Your task to perform on an android device: Open calendar and show me the first week of next month Image 0: 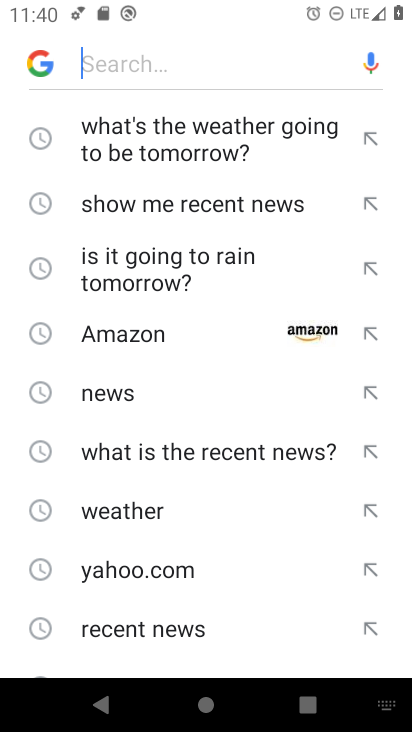
Step 0: press back button
Your task to perform on an android device: Open calendar and show me the first week of next month Image 1: 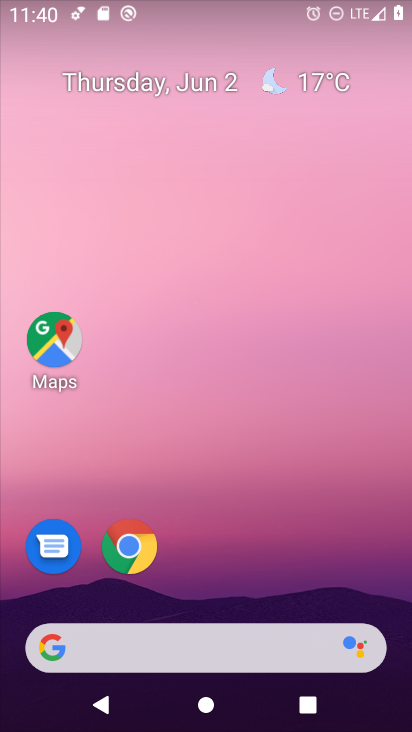
Step 1: click (200, 5)
Your task to perform on an android device: Open calendar and show me the first week of next month Image 2: 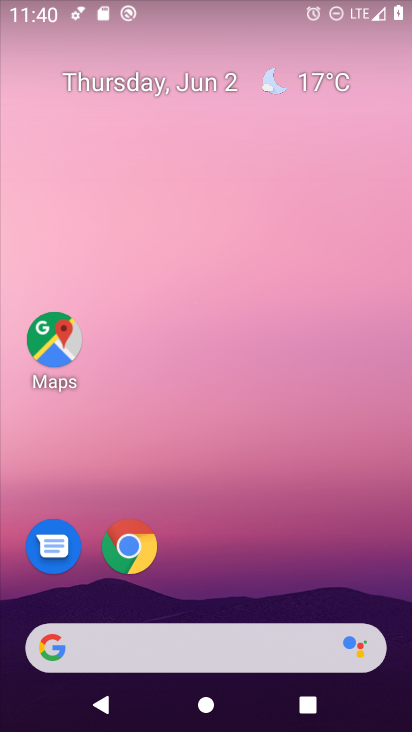
Step 2: drag from (223, 542) to (226, 12)
Your task to perform on an android device: Open calendar and show me the first week of next month Image 3: 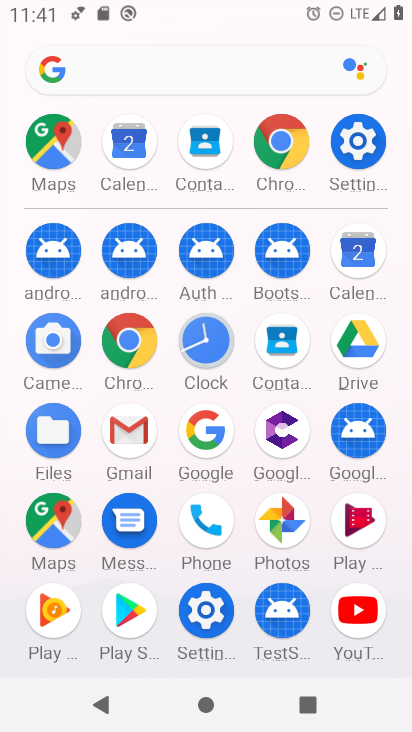
Step 3: click (359, 248)
Your task to perform on an android device: Open calendar and show me the first week of next month Image 4: 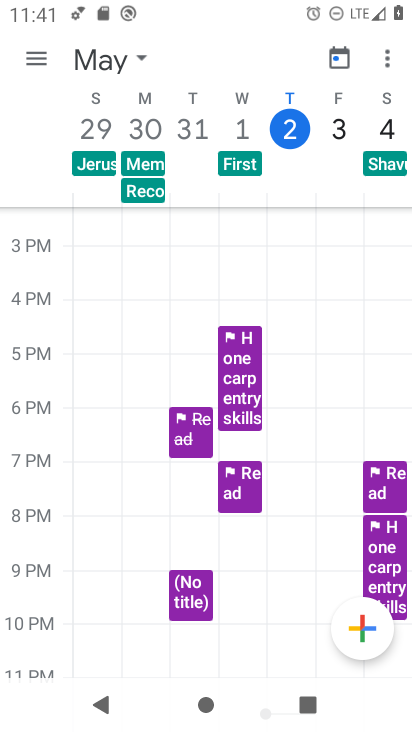
Step 4: click (109, 59)
Your task to perform on an android device: Open calendar and show me the first week of next month Image 5: 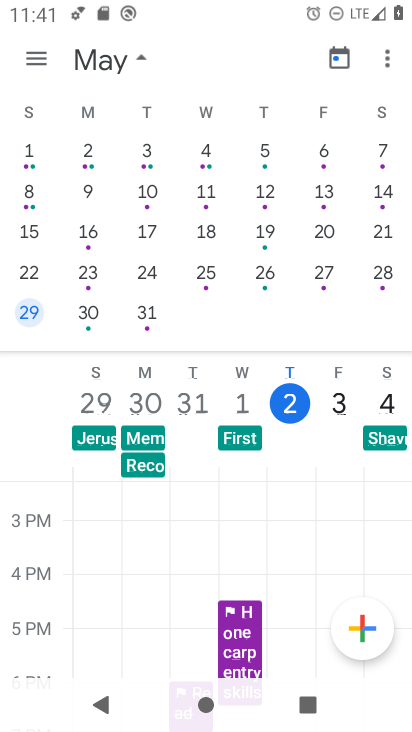
Step 5: drag from (390, 227) to (9, 161)
Your task to perform on an android device: Open calendar and show me the first week of next month Image 6: 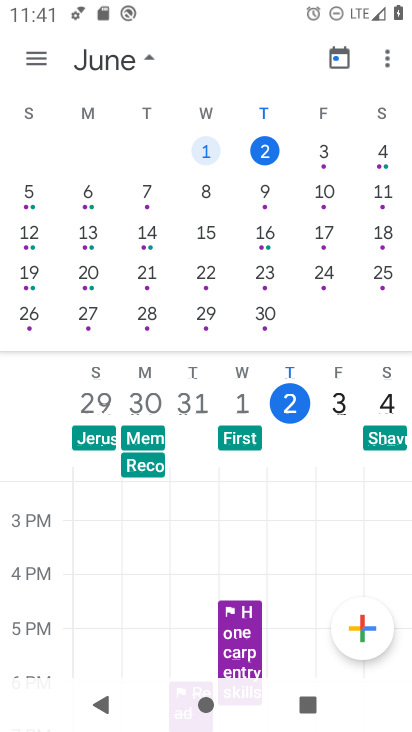
Step 6: click (207, 145)
Your task to perform on an android device: Open calendar and show me the first week of next month Image 7: 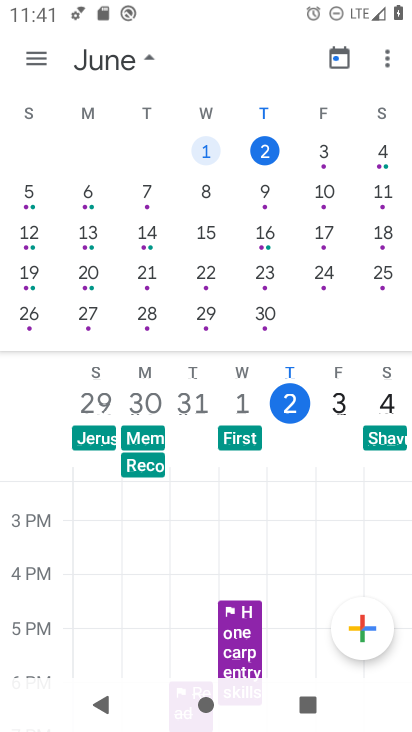
Step 7: click (210, 147)
Your task to perform on an android device: Open calendar and show me the first week of next month Image 8: 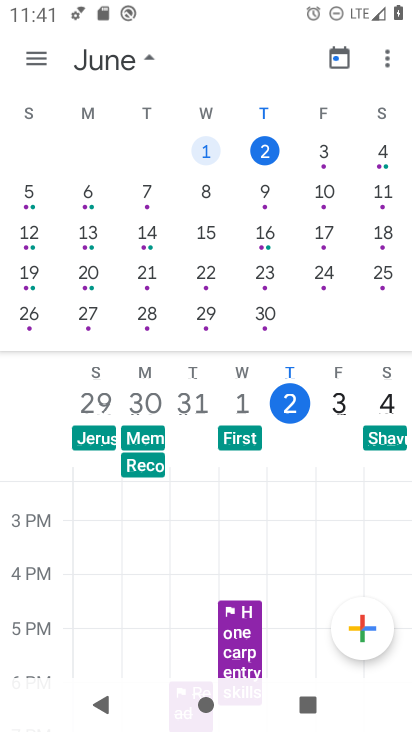
Step 8: click (205, 147)
Your task to perform on an android device: Open calendar and show me the first week of next month Image 9: 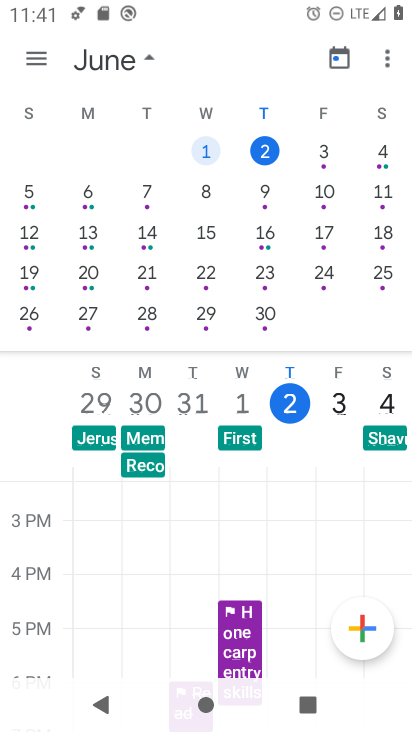
Step 9: click (205, 147)
Your task to perform on an android device: Open calendar and show me the first week of next month Image 10: 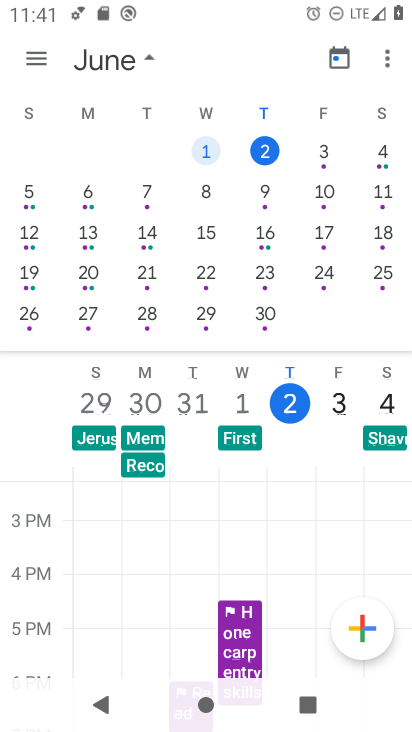
Step 10: click (265, 150)
Your task to perform on an android device: Open calendar and show me the first week of next month Image 11: 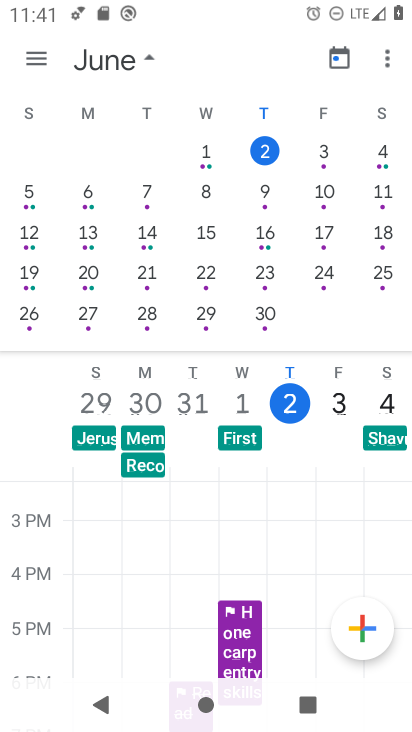
Step 11: click (24, 50)
Your task to perform on an android device: Open calendar and show me the first week of next month Image 12: 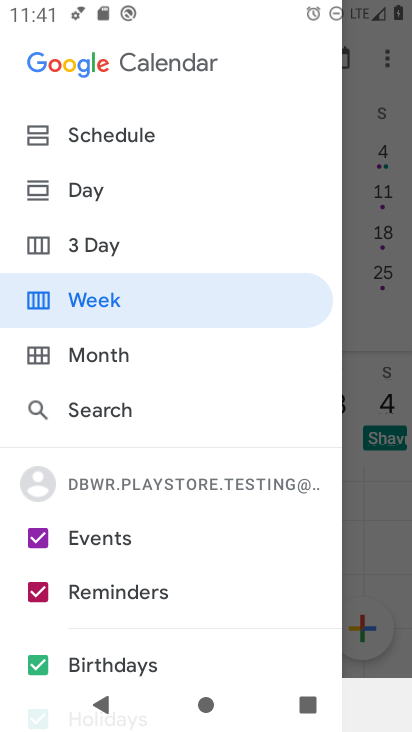
Step 12: click (108, 296)
Your task to perform on an android device: Open calendar and show me the first week of next month Image 13: 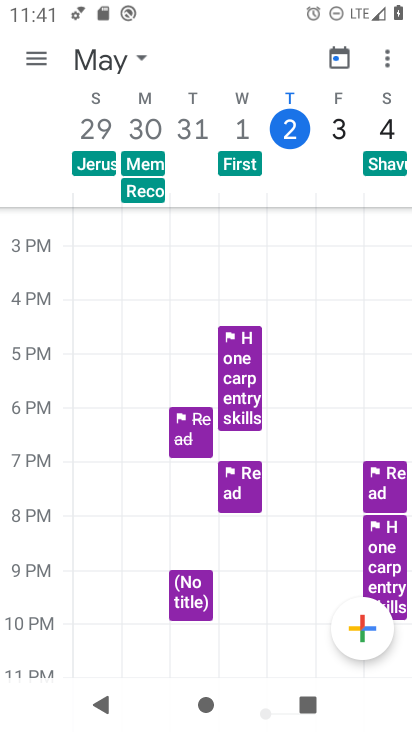
Step 13: click (110, 52)
Your task to perform on an android device: Open calendar and show me the first week of next month Image 14: 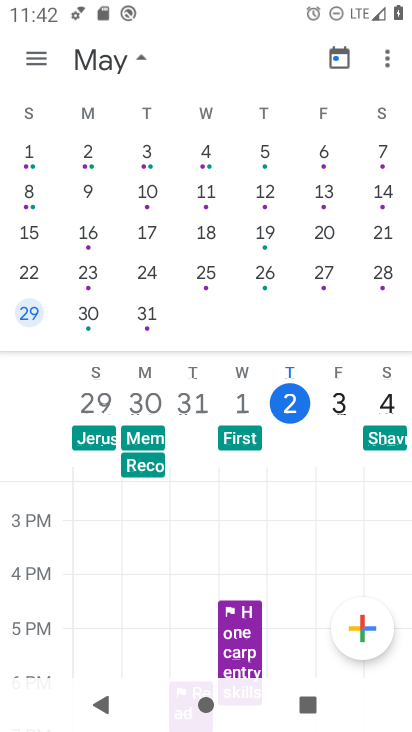
Step 14: click (331, 56)
Your task to perform on an android device: Open calendar and show me the first week of next month Image 15: 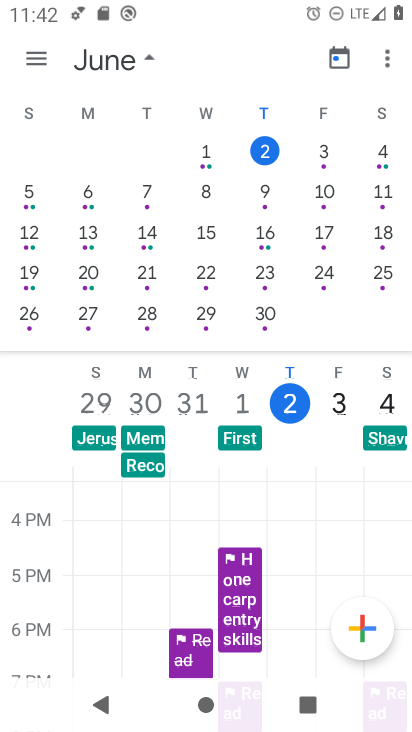
Step 15: drag from (389, 233) to (58, 203)
Your task to perform on an android device: Open calendar and show me the first week of next month Image 16: 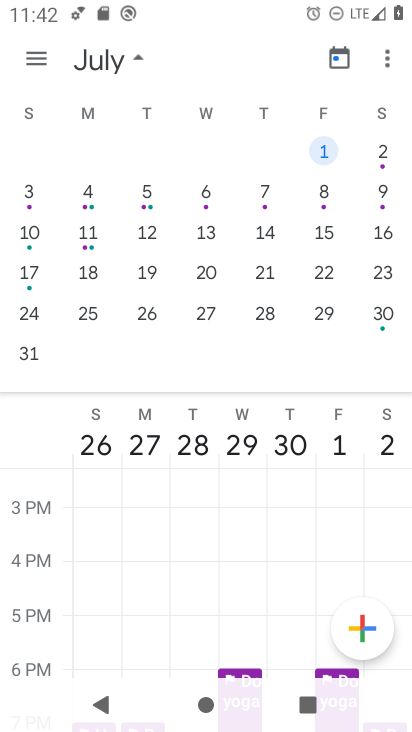
Step 16: drag from (348, 212) to (102, 189)
Your task to perform on an android device: Open calendar and show me the first week of next month Image 17: 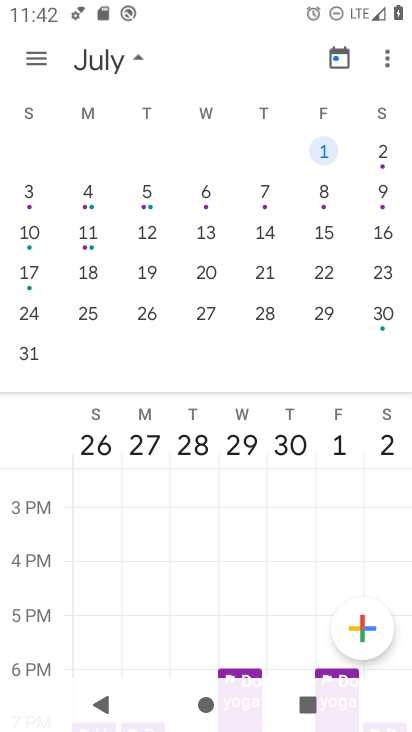
Step 17: click (39, 53)
Your task to perform on an android device: Open calendar and show me the first week of next month Image 18: 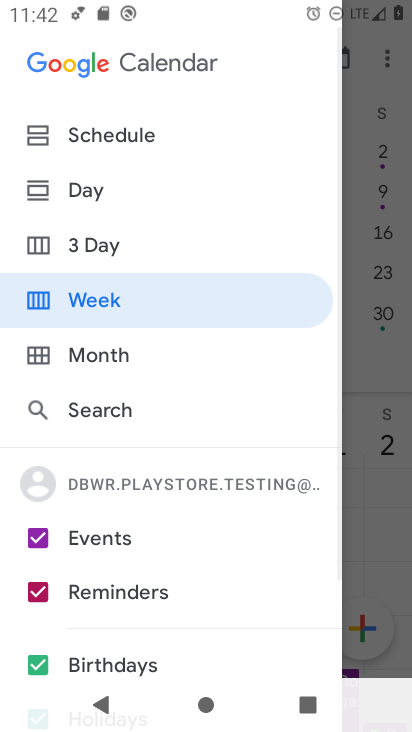
Step 18: click (96, 305)
Your task to perform on an android device: Open calendar and show me the first week of next month Image 19: 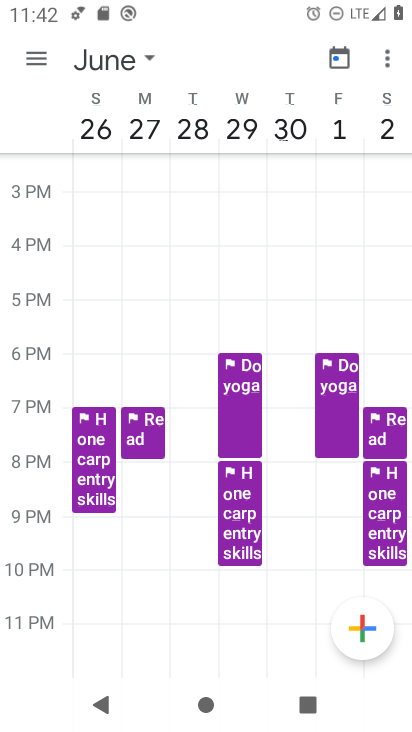
Step 19: task complete